Your task to perform on an android device: check google app version Image 0: 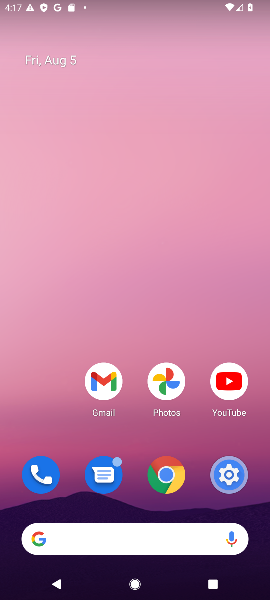
Step 0: click (36, 545)
Your task to perform on an android device: check google app version Image 1: 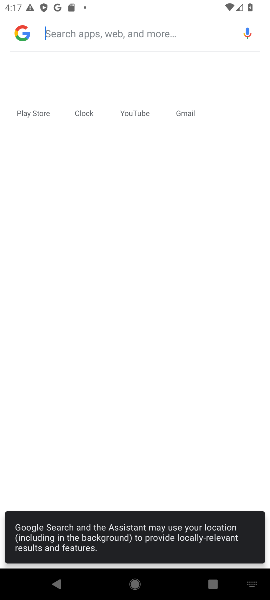
Step 1: click (30, 38)
Your task to perform on an android device: check google app version Image 2: 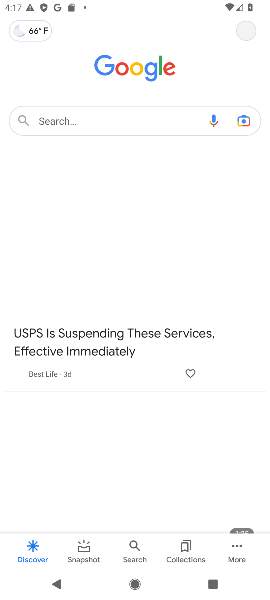
Step 2: click (237, 546)
Your task to perform on an android device: check google app version Image 3: 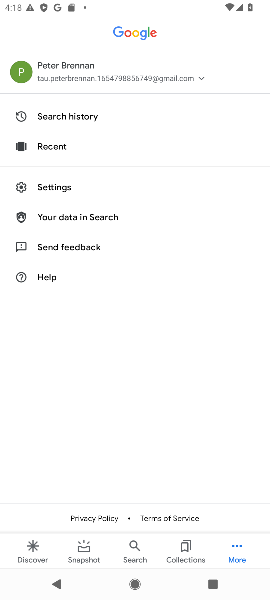
Step 3: click (61, 189)
Your task to perform on an android device: check google app version Image 4: 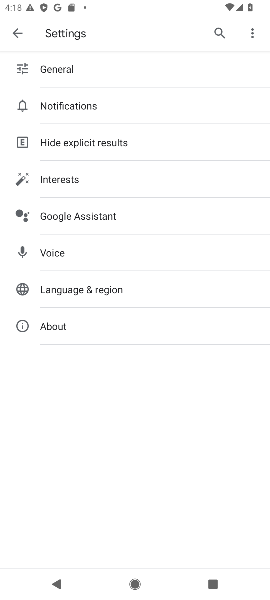
Step 4: click (91, 329)
Your task to perform on an android device: check google app version Image 5: 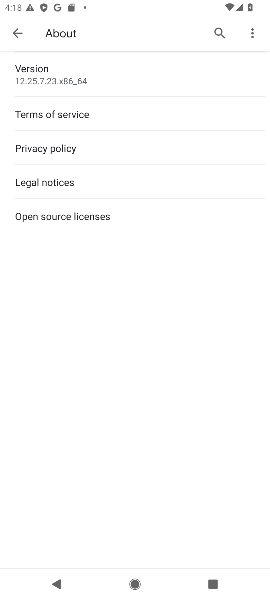
Step 5: task complete